Your task to perform on an android device: Search for hotels in New York Image 0: 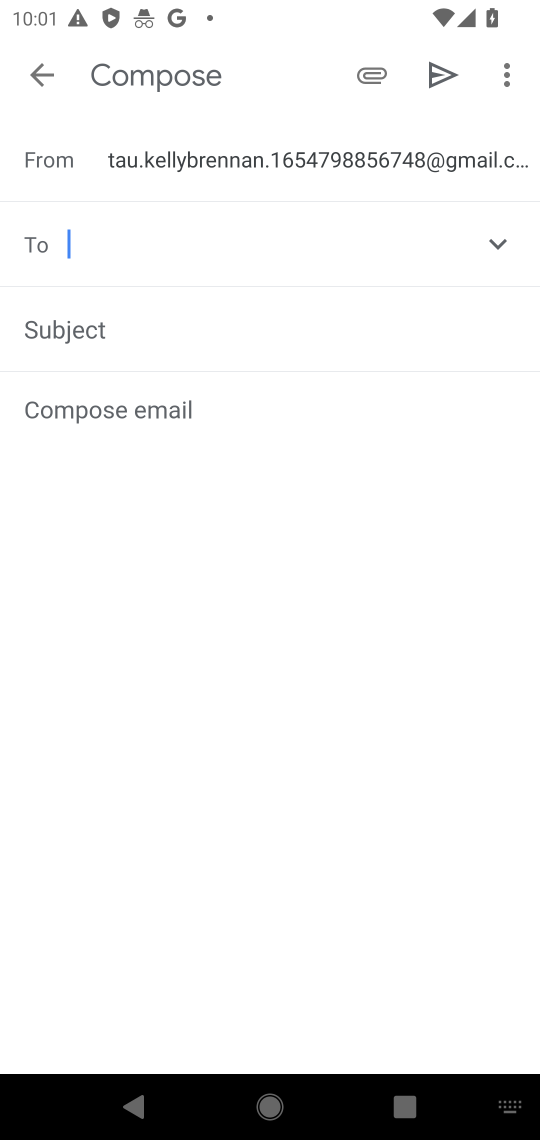
Step 0: press home button
Your task to perform on an android device: Search for hotels in New York Image 1: 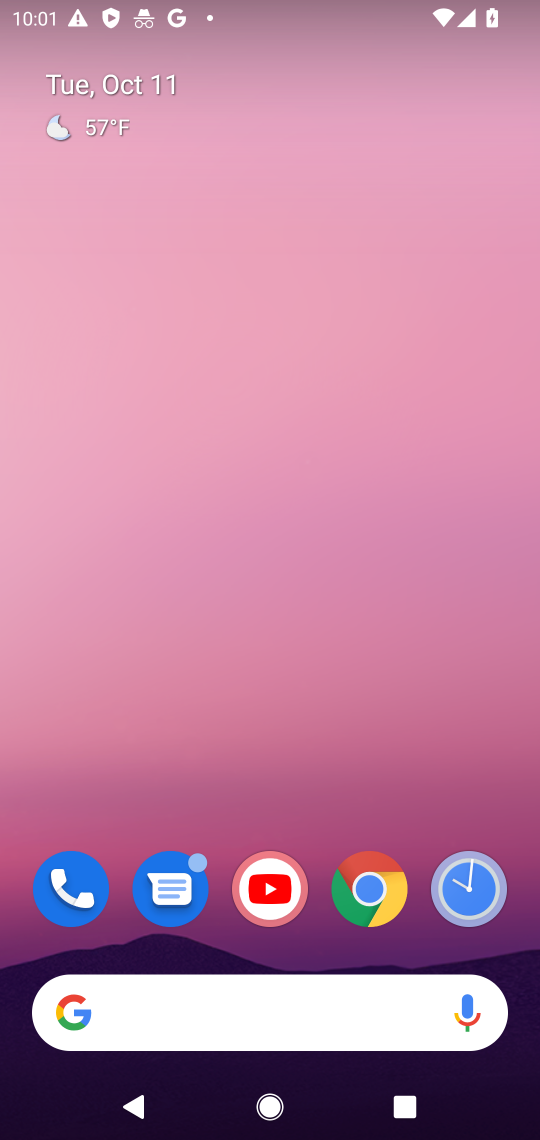
Step 1: click (226, 1021)
Your task to perform on an android device: Search for hotels in New York Image 2: 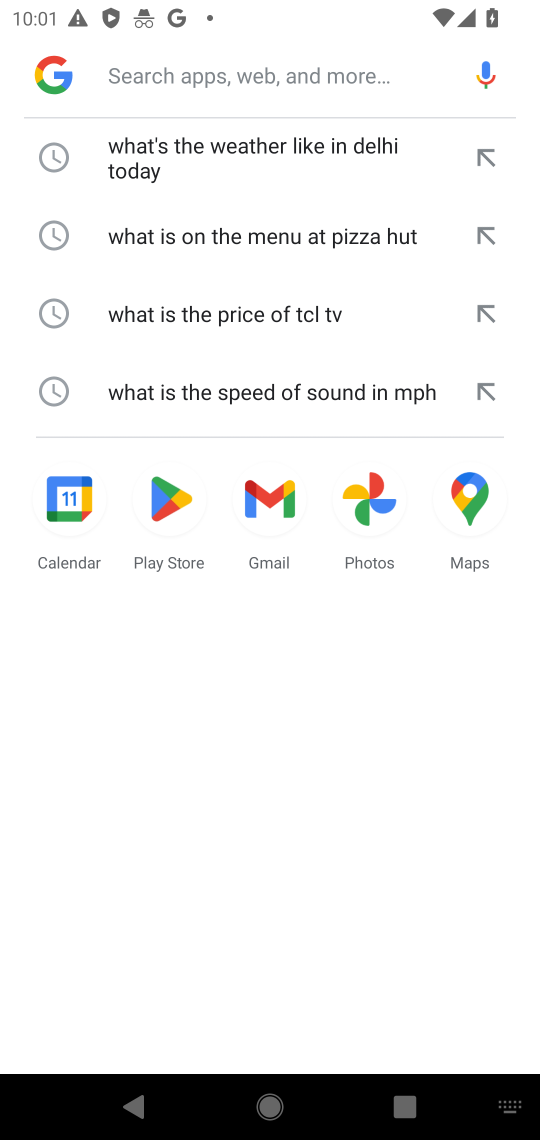
Step 2: click (154, 78)
Your task to perform on an android device: Search for hotels in New York Image 3: 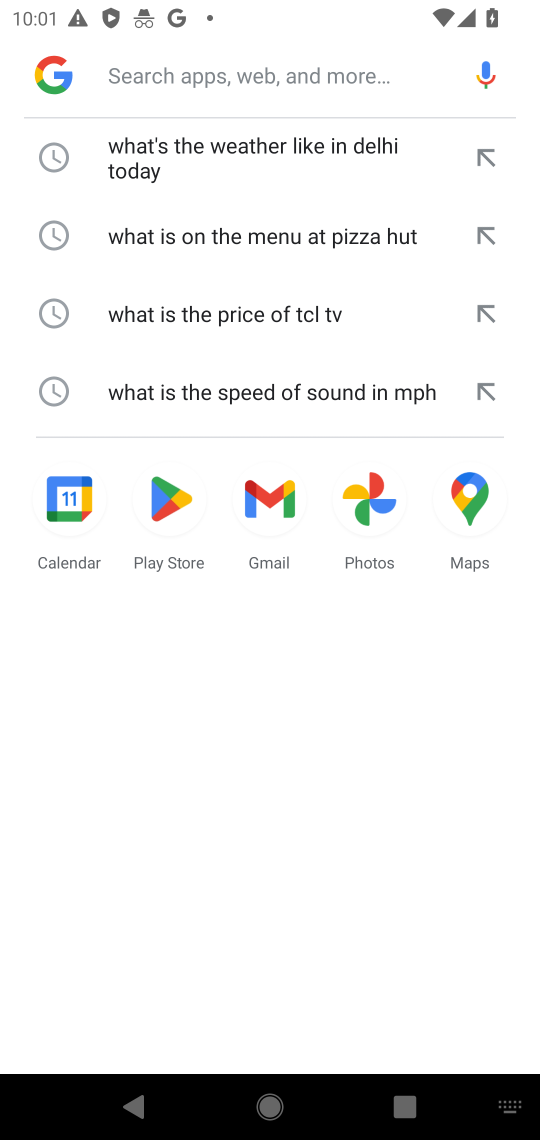
Step 3: type "hotels in New York"
Your task to perform on an android device: Search for hotels in New York Image 4: 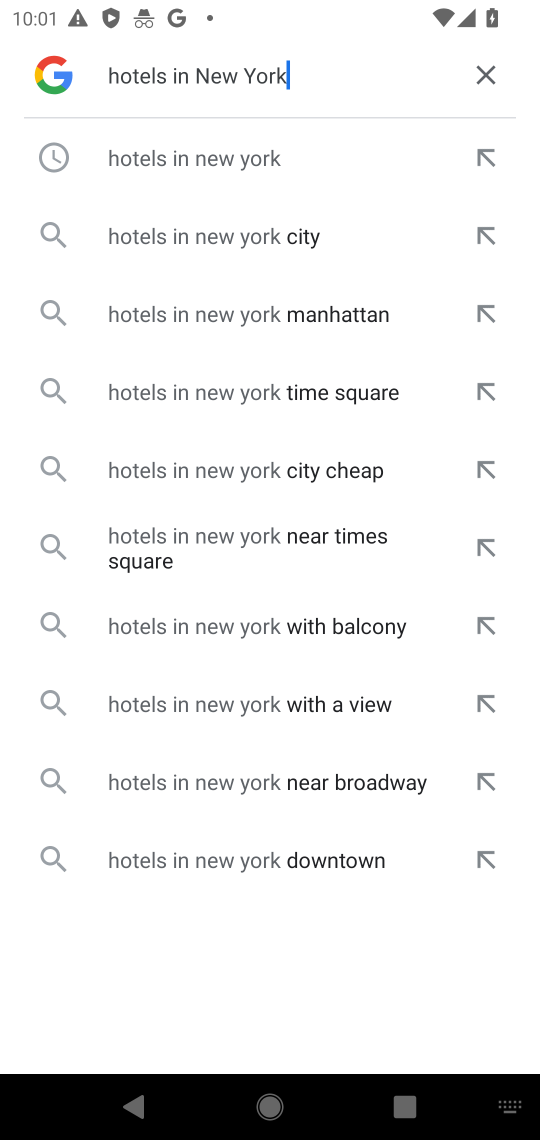
Step 4: click (199, 141)
Your task to perform on an android device: Search for hotels in New York Image 5: 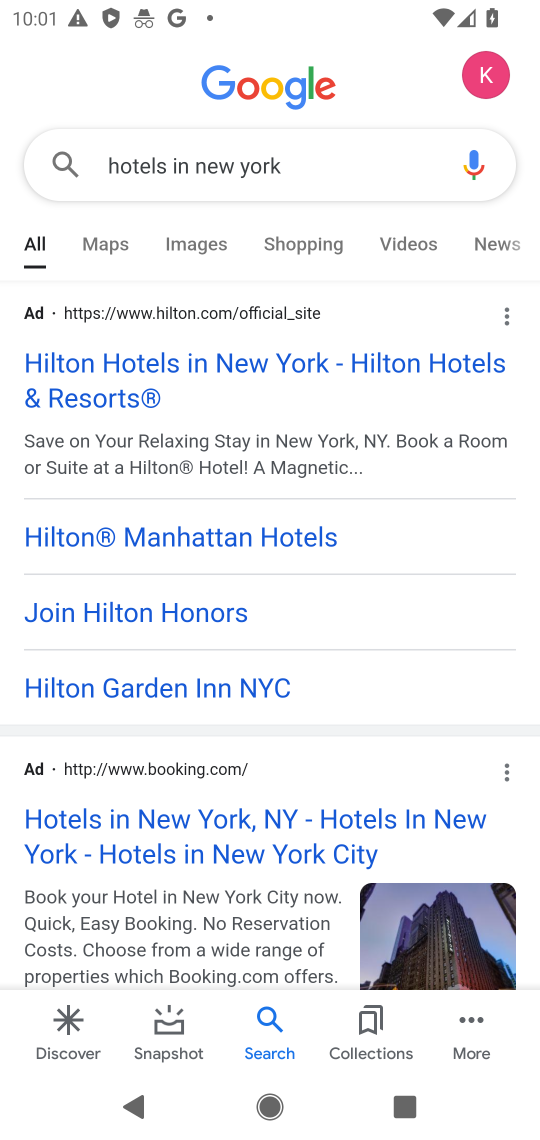
Step 5: task complete